Your task to perform on an android device: turn off airplane mode Image 0: 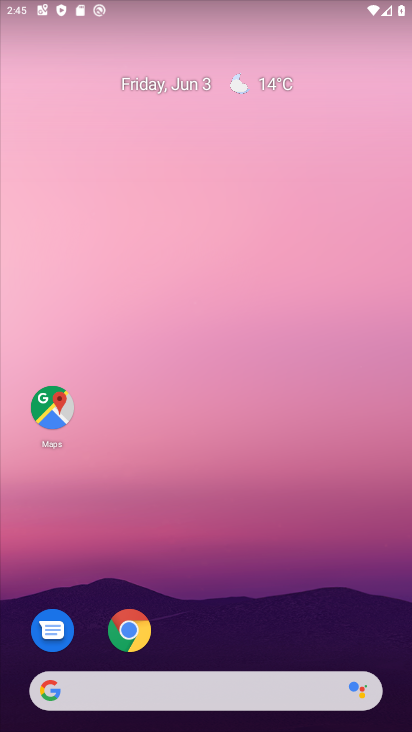
Step 0: drag from (240, 629) to (138, 213)
Your task to perform on an android device: turn off airplane mode Image 1: 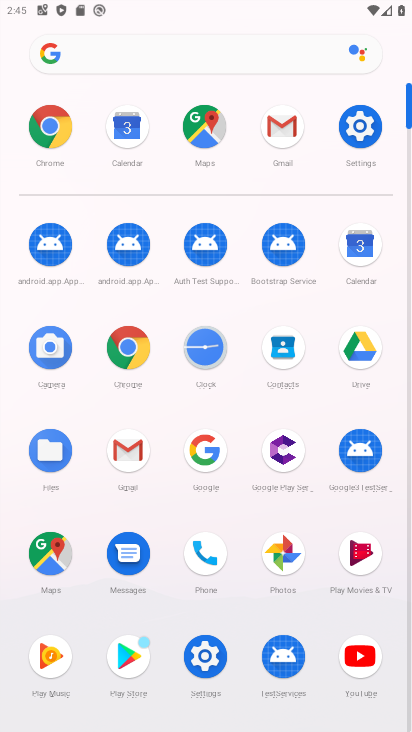
Step 1: click (365, 128)
Your task to perform on an android device: turn off airplane mode Image 2: 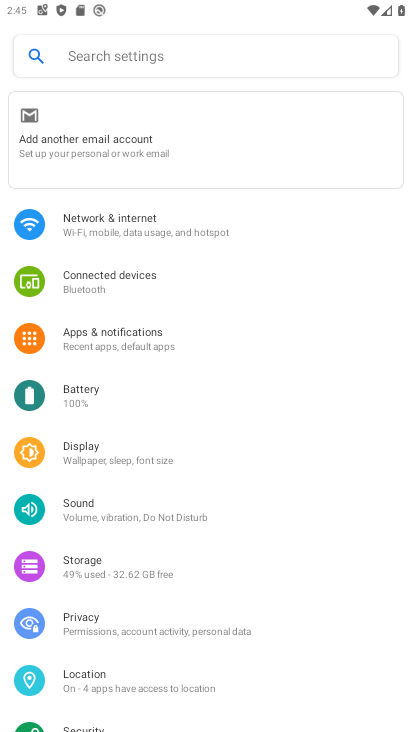
Step 2: click (267, 222)
Your task to perform on an android device: turn off airplane mode Image 3: 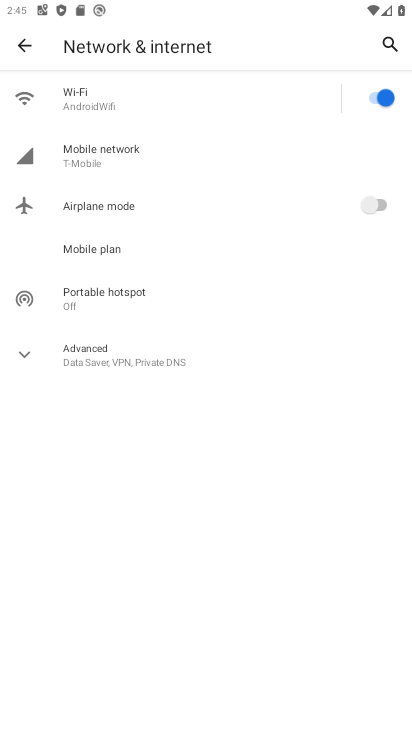
Step 3: task complete